Your task to perform on an android device: Set the phone to "Do not disturb". Image 0: 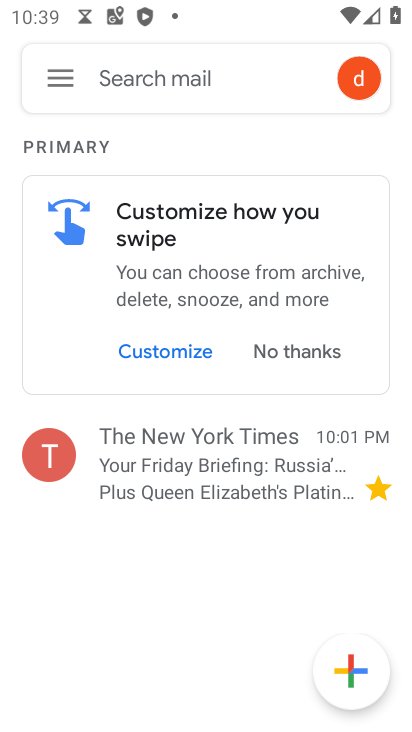
Step 0: press back button
Your task to perform on an android device: Set the phone to "Do not disturb". Image 1: 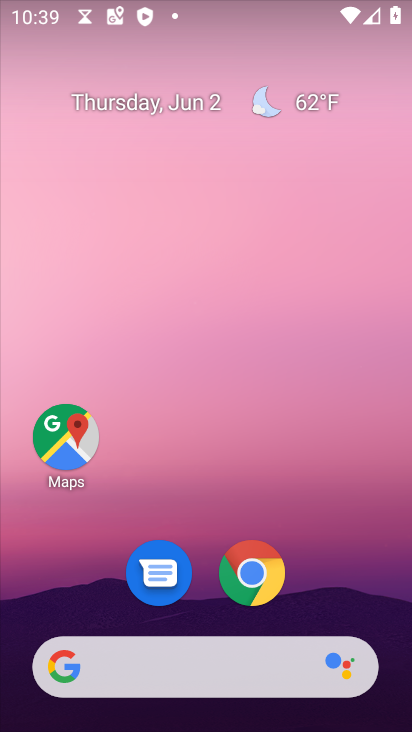
Step 1: drag from (334, 538) to (241, 134)
Your task to perform on an android device: Set the phone to "Do not disturb". Image 2: 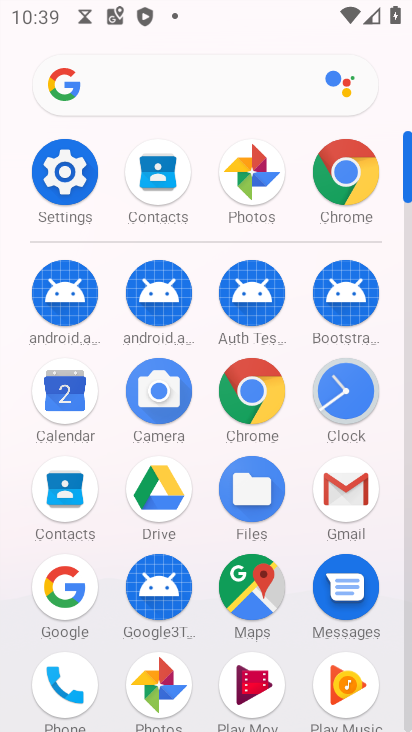
Step 2: click (66, 172)
Your task to perform on an android device: Set the phone to "Do not disturb". Image 3: 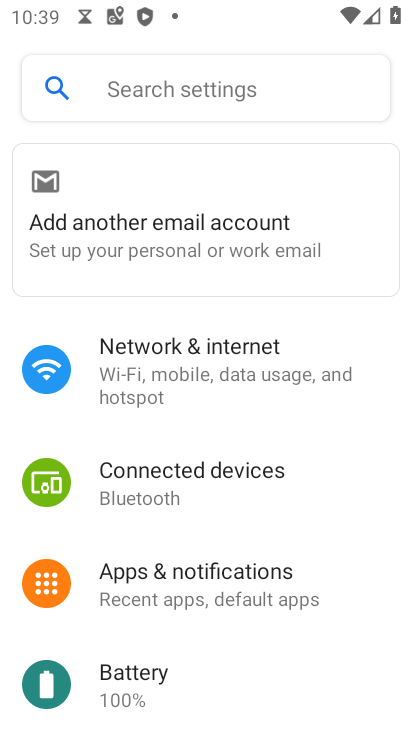
Step 3: drag from (183, 502) to (249, 410)
Your task to perform on an android device: Set the phone to "Do not disturb". Image 4: 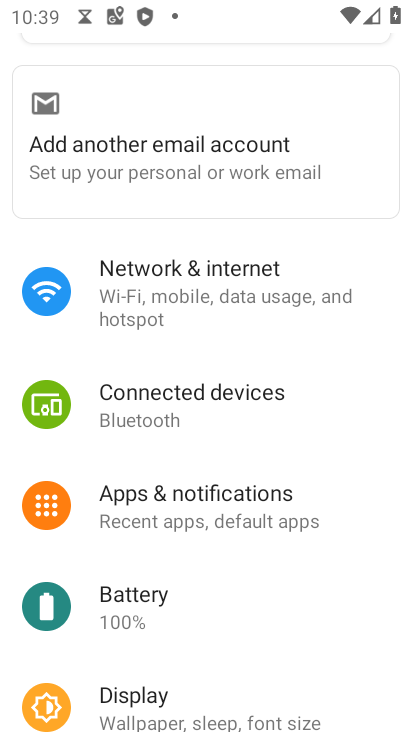
Step 4: drag from (204, 561) to (274, 455)
Your task to perform on an android device: Set the phone to "Do not disturb". Image 5: 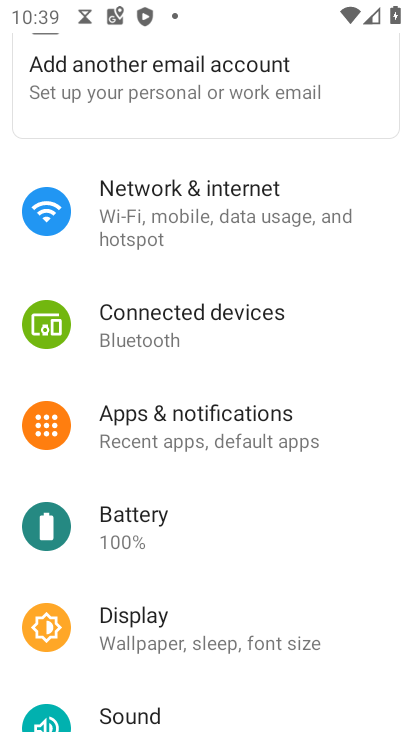
Step 5: drag from (217, 571) to (306, 460)
Your task to perform on an android device: Set the phone to "Do not disturb". Image 6: 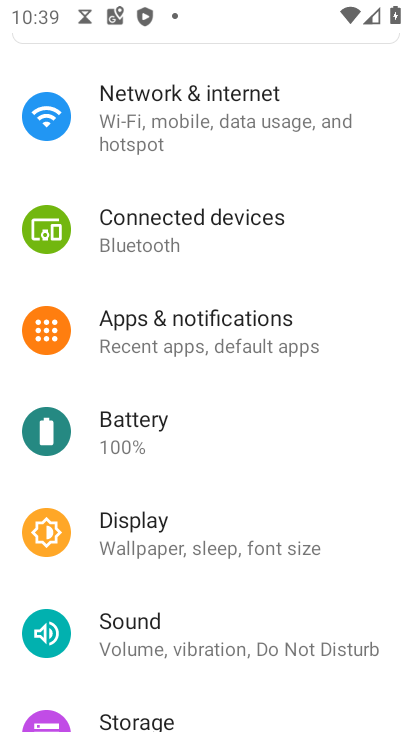
Step 6: drag from (242, 590) to (346, 471)
Your task to perform on an android device: Set the phone to "Do not disturb". Image 7: 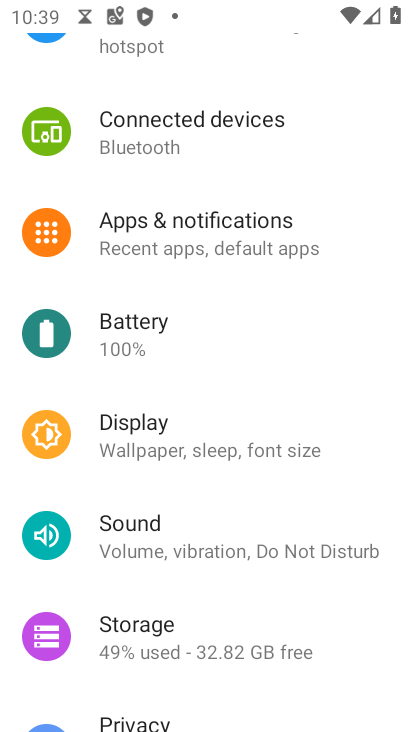
Step 7: click (265, 553)
Your task to perform on an android device: Set the phone to "Do not disturb". Image 8: 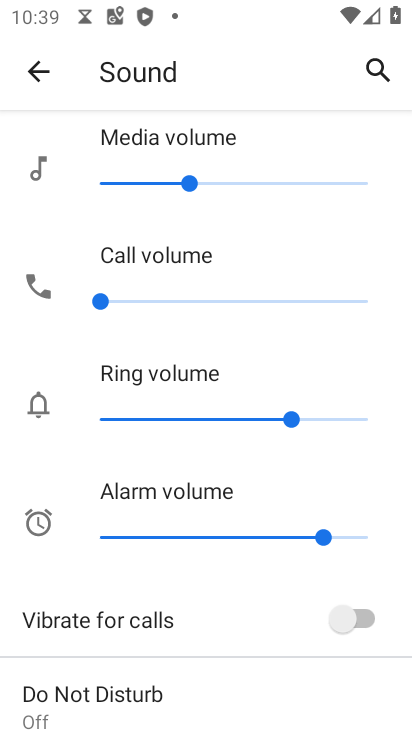
Step 8: drag from (199, 596) to (289, 478)
Your task to perform on an android device: Set the phone to "Do not disturb". Image 9: 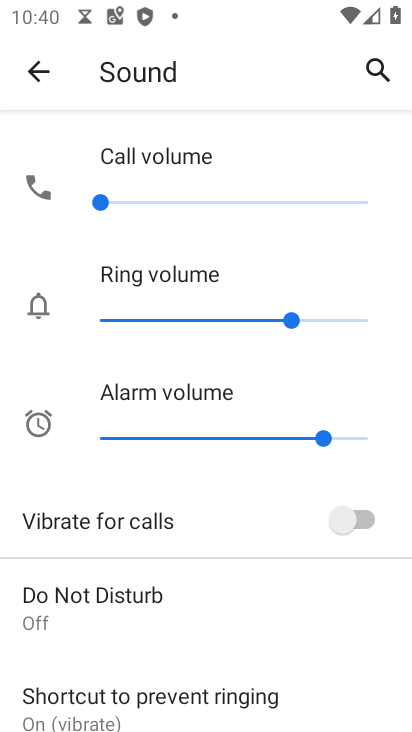
Step 9: click (119, 601)
Your task to perform on an android device: Set the phone to "Do not disturb". Image 10: 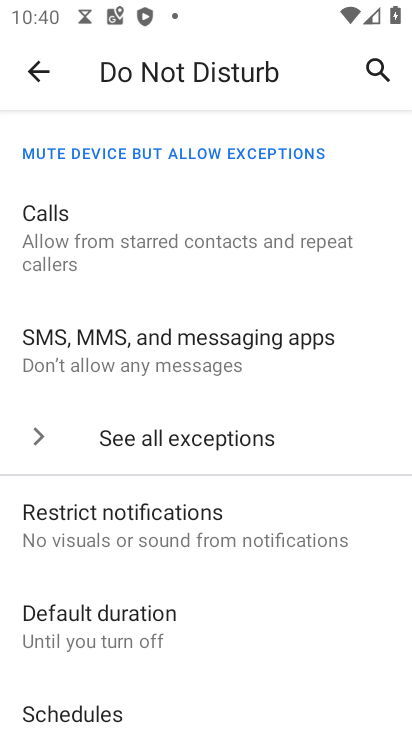
Step 10: drag from (216, 593) to (295, 467)
Your task to perform on an android device: Set the phone to "Do not disturb". Image 11: 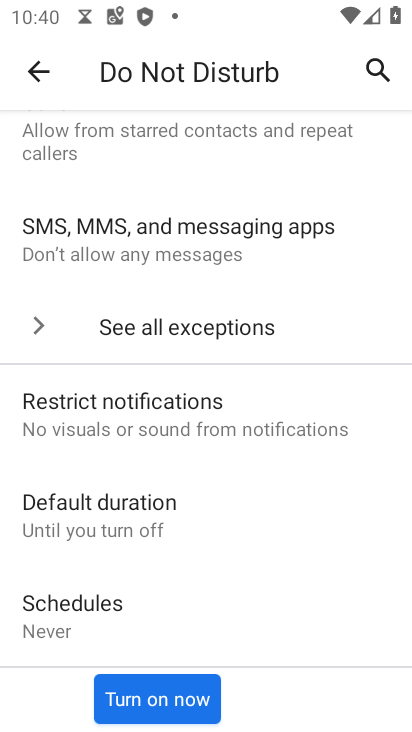
Step 11: click (149, 701)
Your task to perform on an android device: Set the phone to "Do not disturb". Image 12: 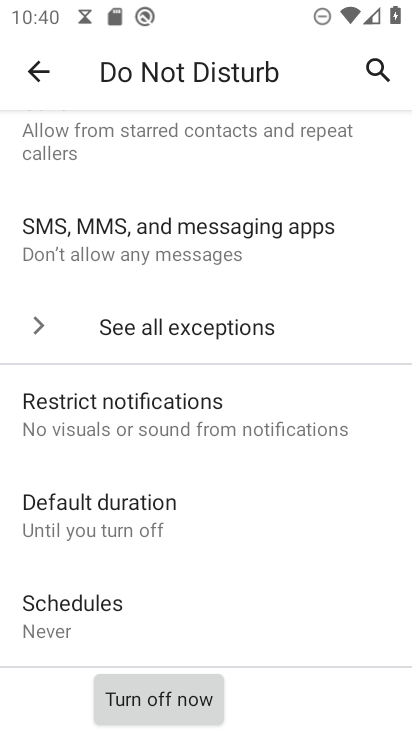
Step 12: task complete